Your task to perform on an android device: Search for the best rated wireless headphones on Amazon. Image 0: 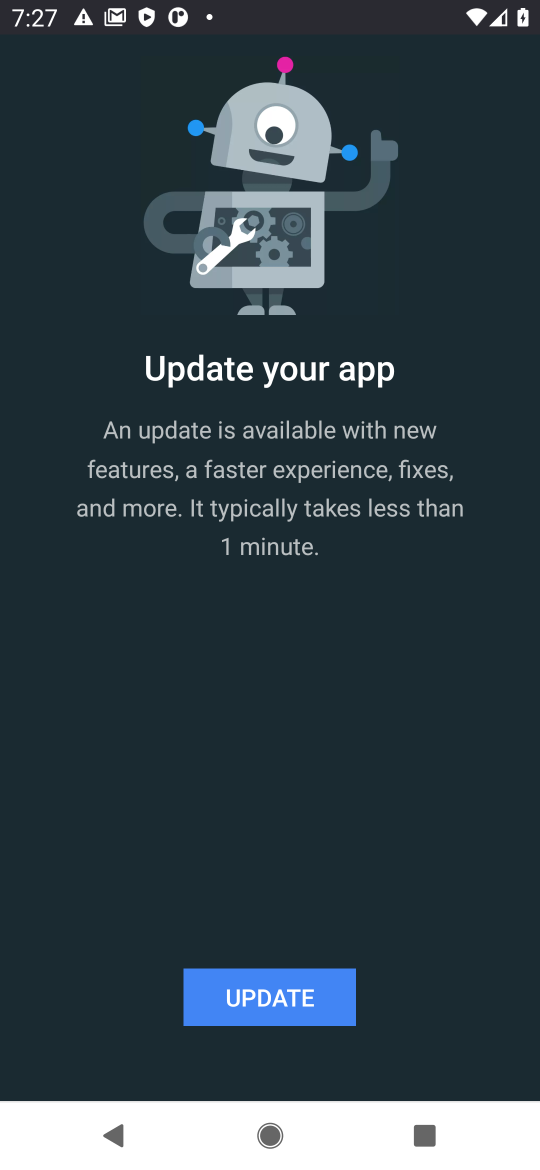
Step 0: press home button
Your task to perform on an android device: Search for the best rated wireless headphones on Amazon. Image 1: 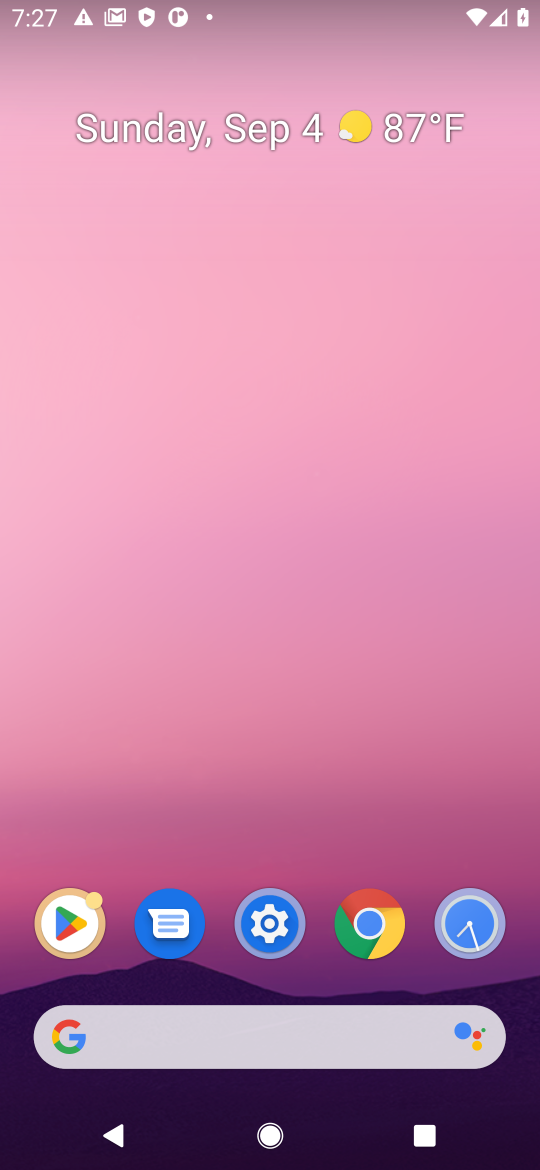
Step 1: click (384, 1039)
Your task to perform on an android device: Search for the best rated wireless headphones on Amazon. Image 2: 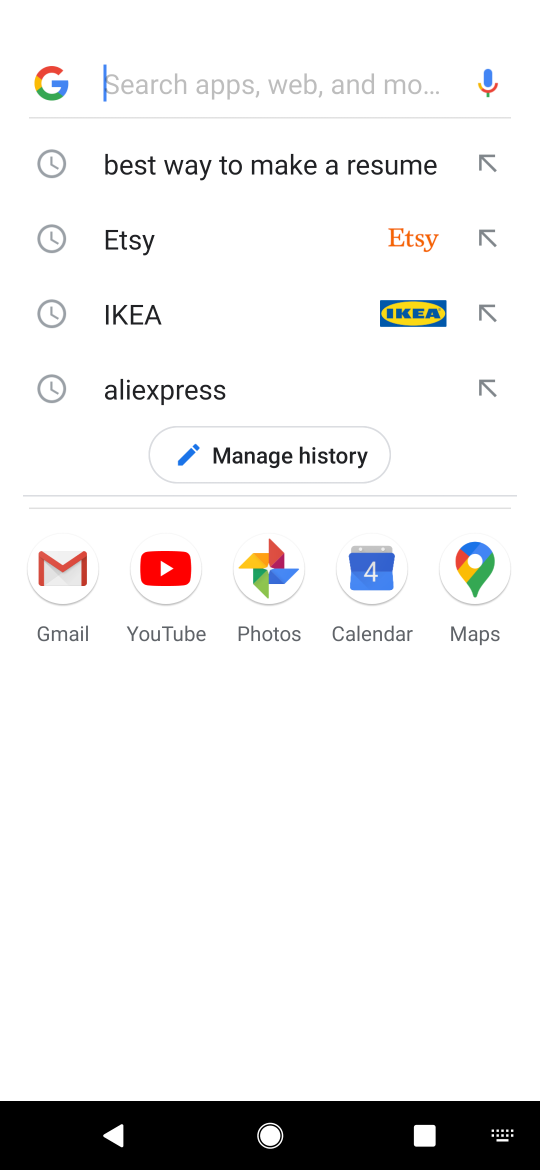
Step 2: press enter
Your task to perform on an android device: Search for the best rated wireless headphones on Amazon. Image 3: 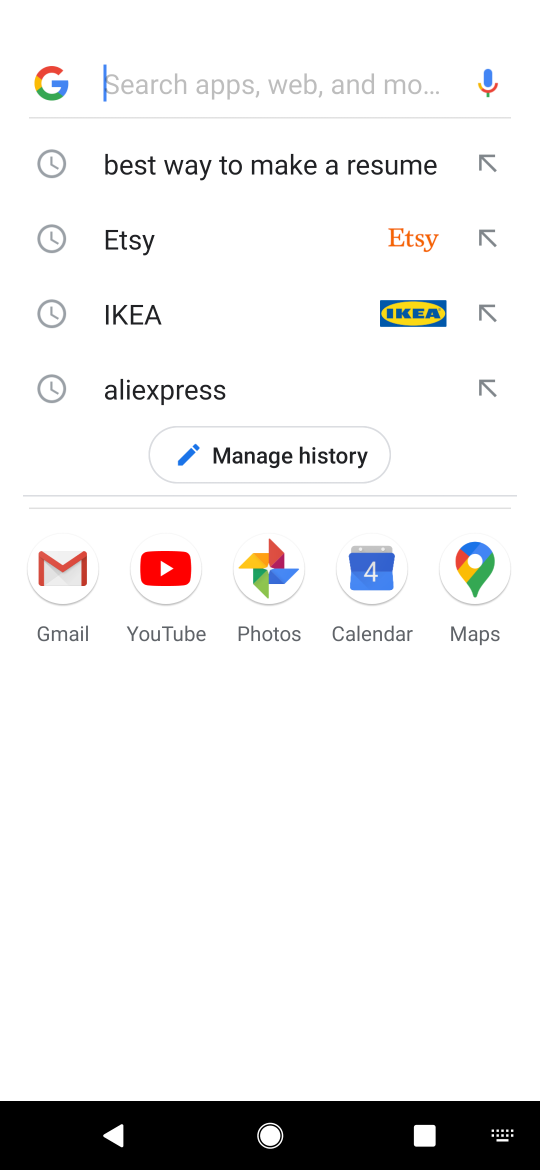
Step 3: type "amazon"
Your task to perform on an android device: Search for the best rated wireless headphones on Amazon. Image 4: 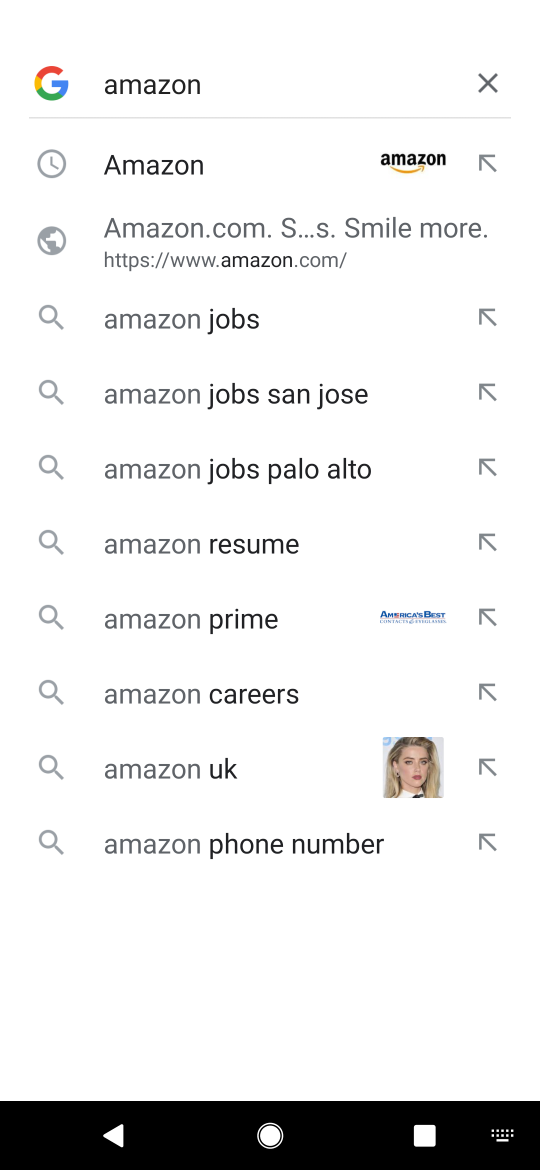
Step 4: click (231, 231)
Your task to perform on an android device: Search for the best rated wireless headphones on Amazon. Image 5: 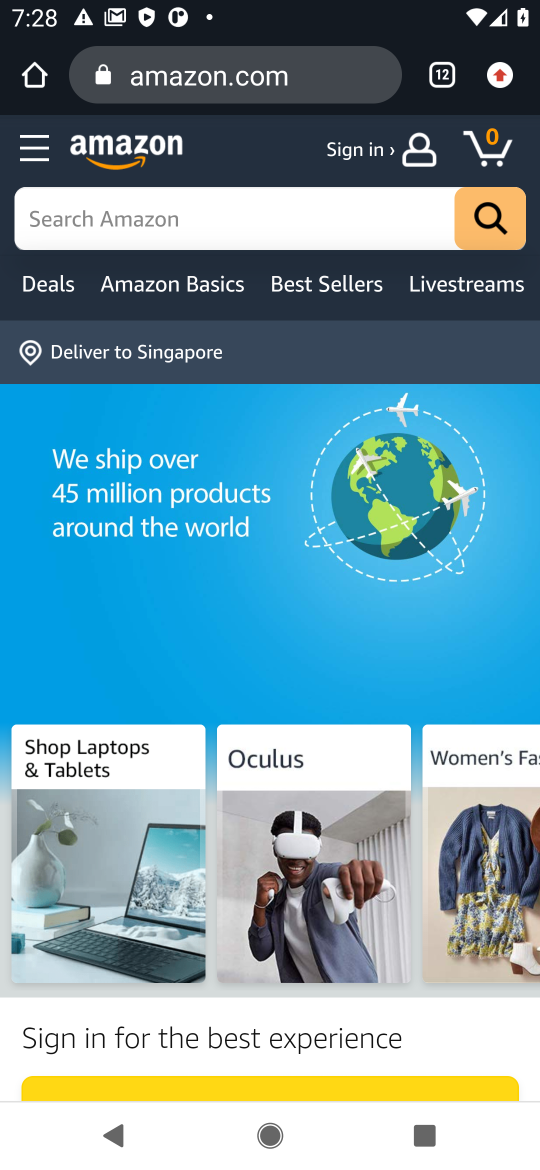
Step 5: click (231, 217)
Your task to perform on an android device: Search for the best rated wireless headphones on Amazon. Image 6: 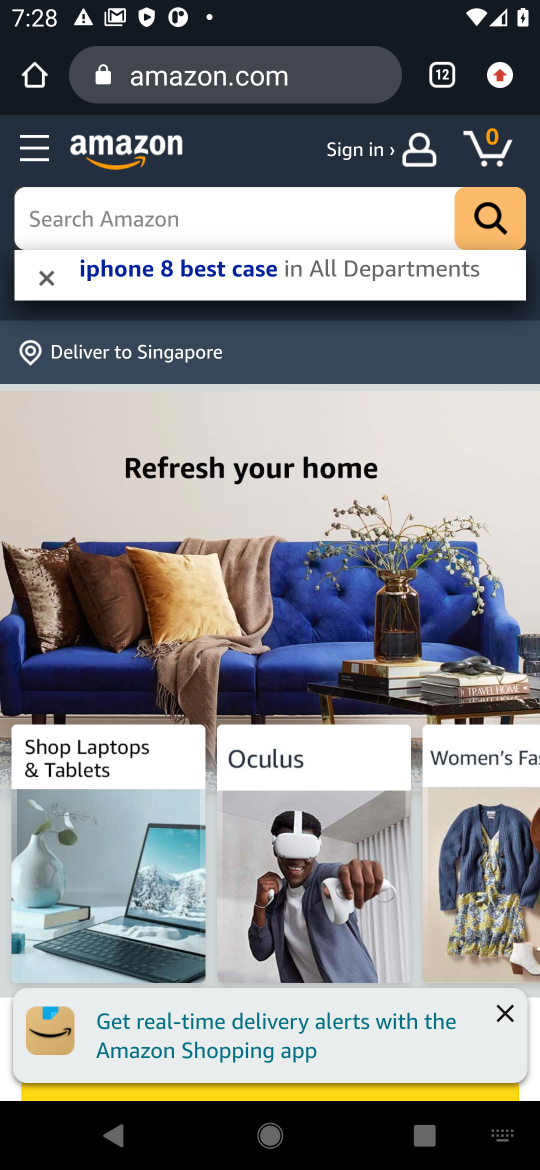
Step 6: press enter
Your task to perform on an android device: Search for the best rated wireless headphones on Amazon. Image 7: 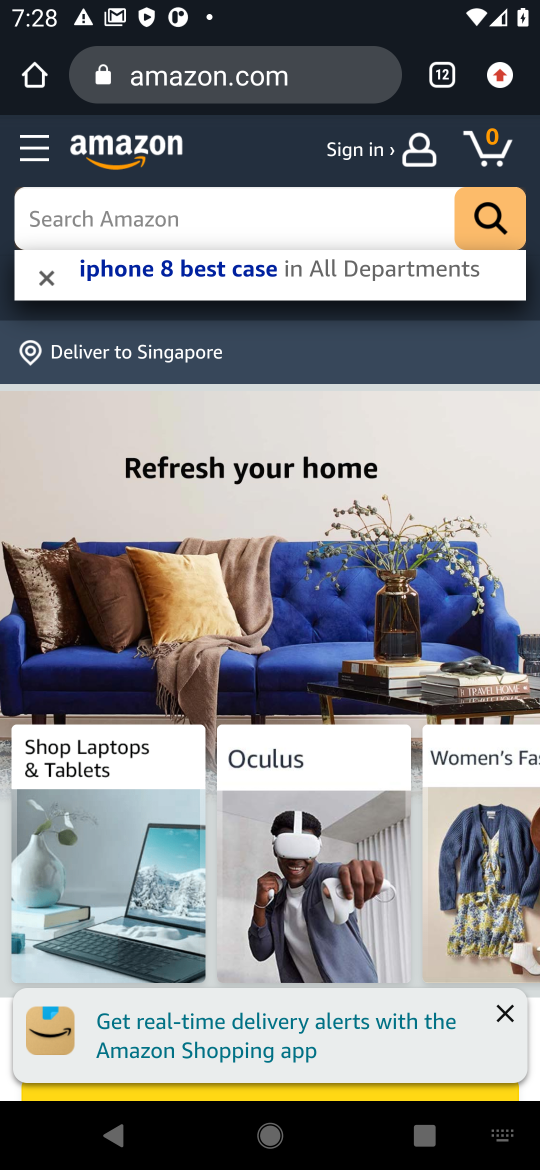
Step 7: type "wireless headphones"
Your task to perform on an android device: Search for the best rated wireless headphones on Amazon. Image 8: 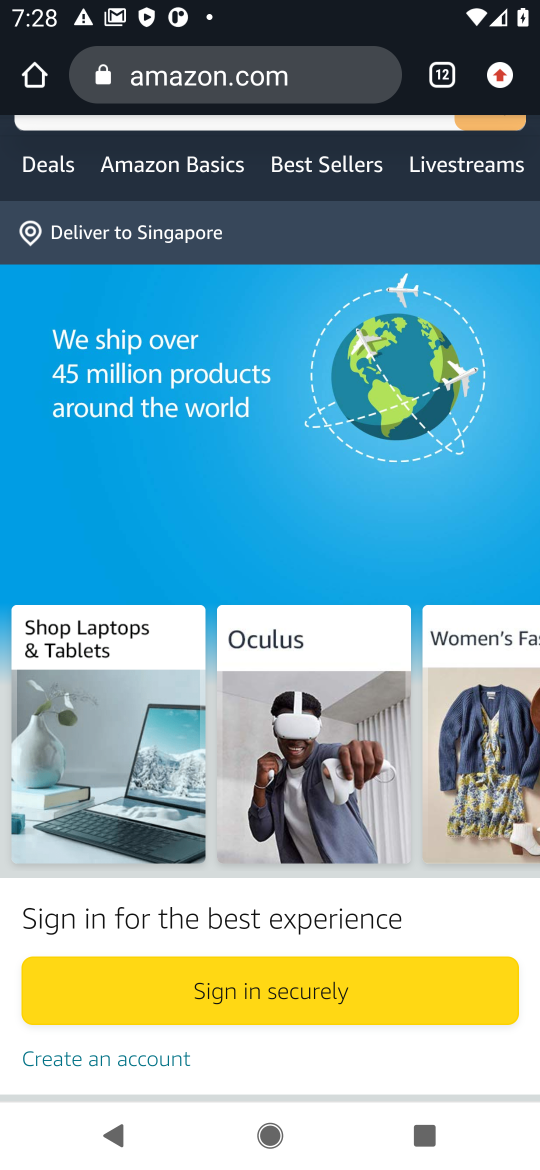
Step 8: drag from (487, 308) to (485, 759)
Your task to perform on an android device: Search for the best rated wireless headphones on Amazon. Image 9: 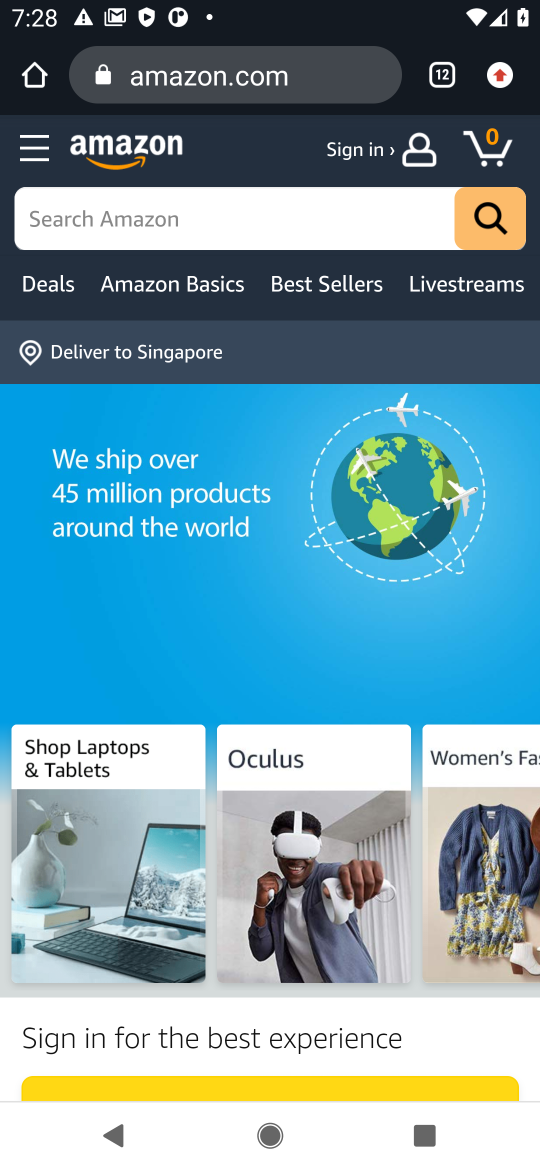
Step 9: click (207, 224)
Your task to perform on an android device: Search for the best rated wireless headphones on Amazon. Image 10: 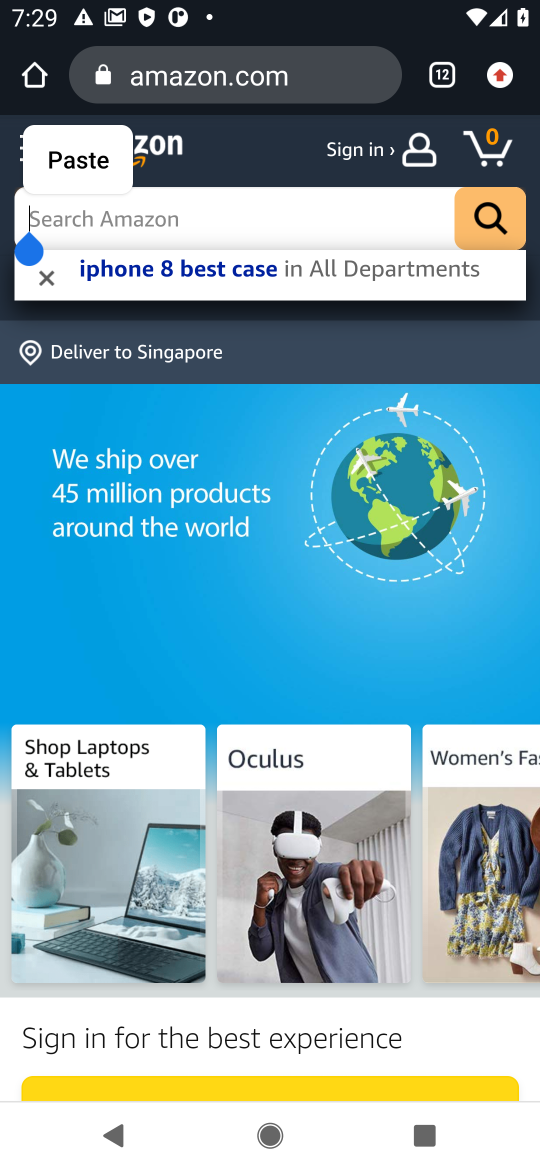
Step 10: type "wireless headphones"
Your task to perform on an android device: Search for the best rated wireless headphones on Amazon. Image 11: 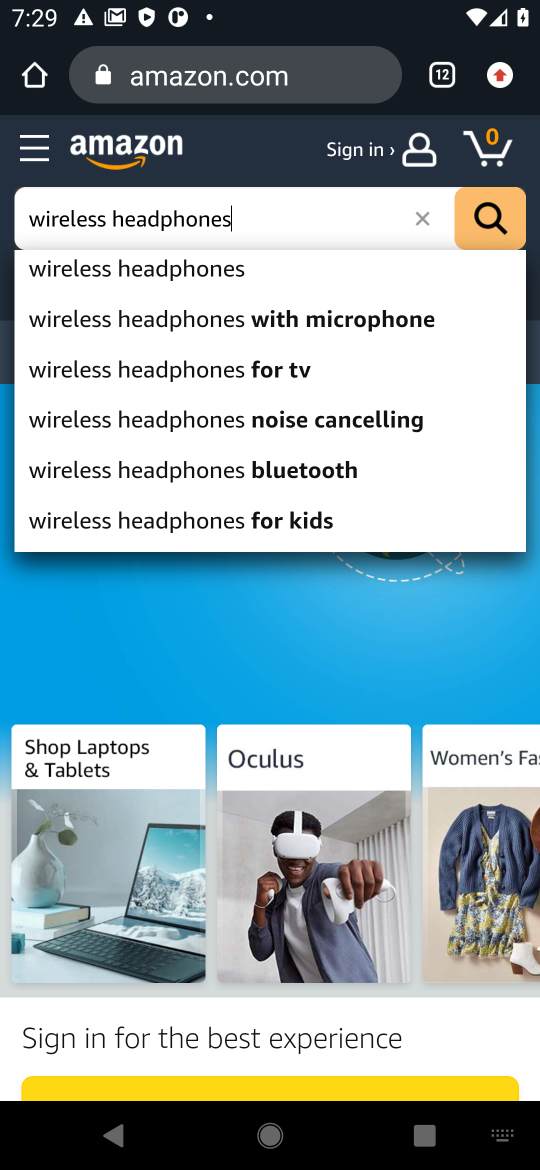
Step 11: click (271, 271)
Your task to perform on an android device: Search for the best rated wireless headphones on Amazon. Image 12: 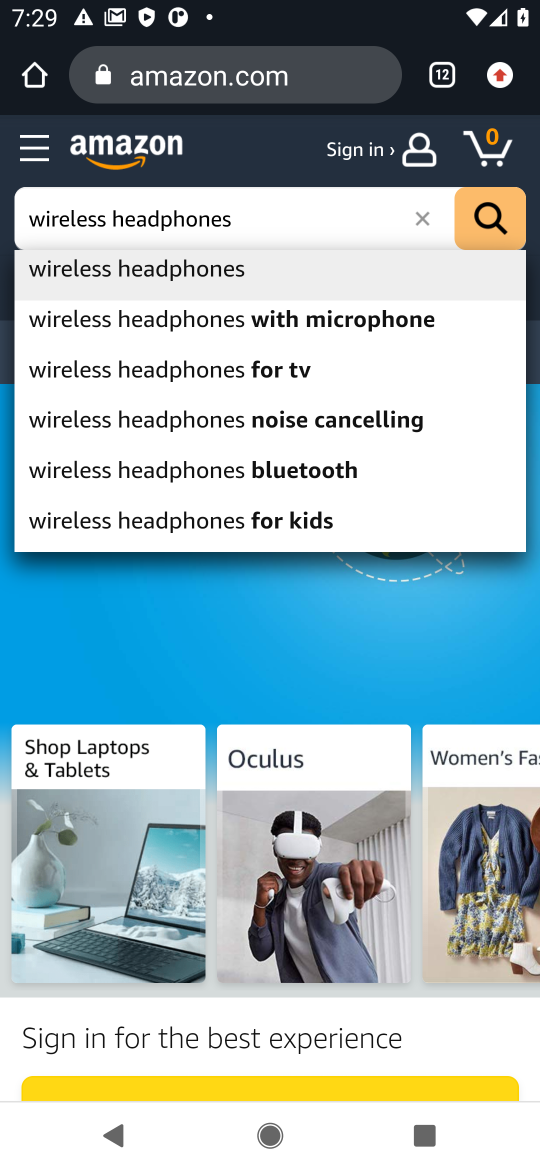
Step 12: click (209, 267)
Your task to perform on an android device: Search for the best rated wireless headphones on Amazon. Image 13: 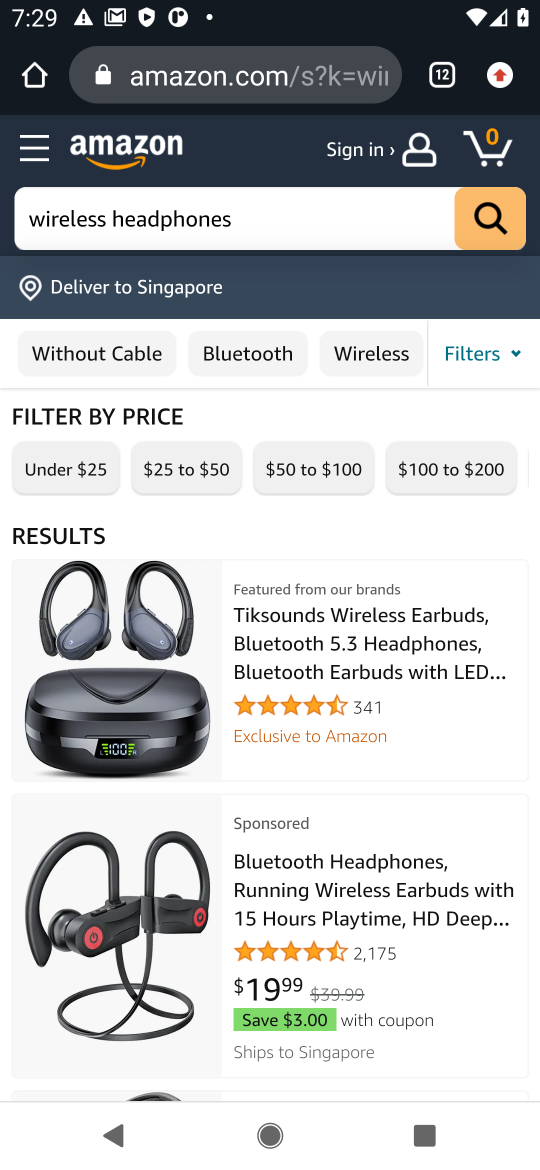
Step 13: task complete